Your task to perform on an android device: Open wifi settings Image 0: 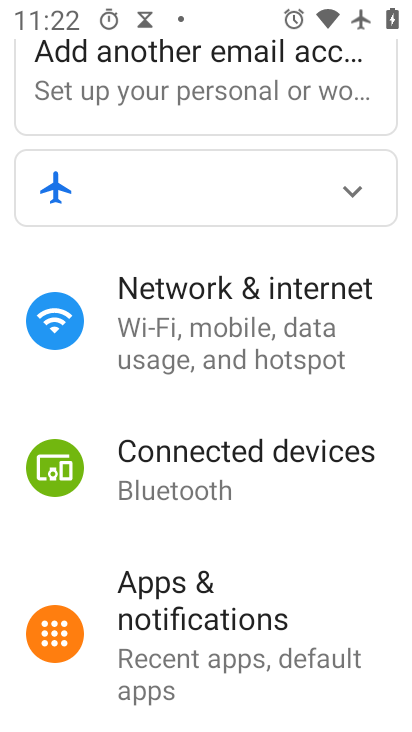
Step 0: press home button
Your task to perform on an android device: Open wifi settings Image 1: 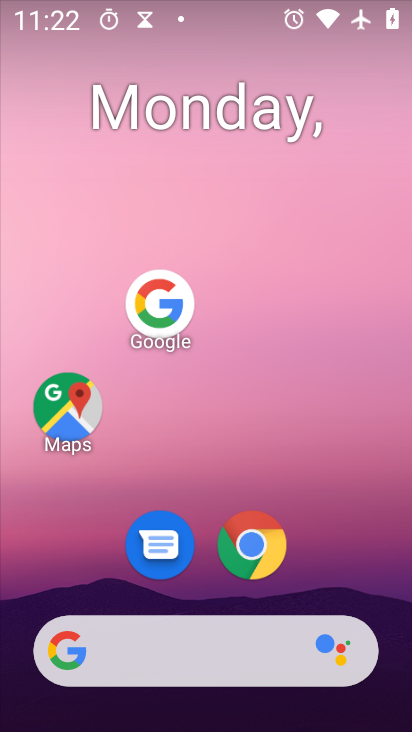
Step 1: drag from (182, 667) to (276, 196)
Your task to perform on an android device: Open wifi settings Image 2: 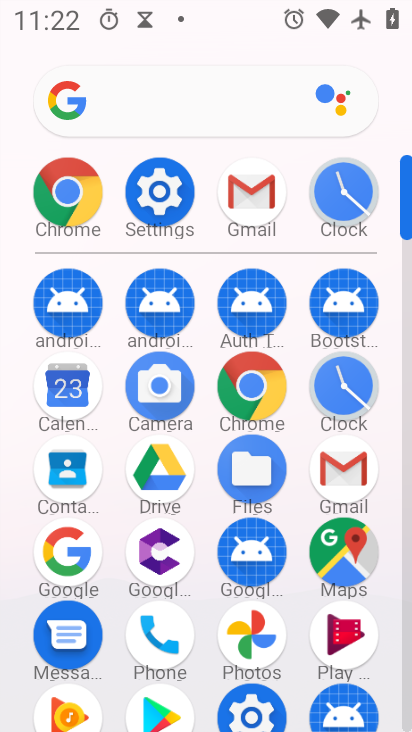
Step 2: click (164, 184)
Your task to perform on an android device: Open wifi settings Image 3: 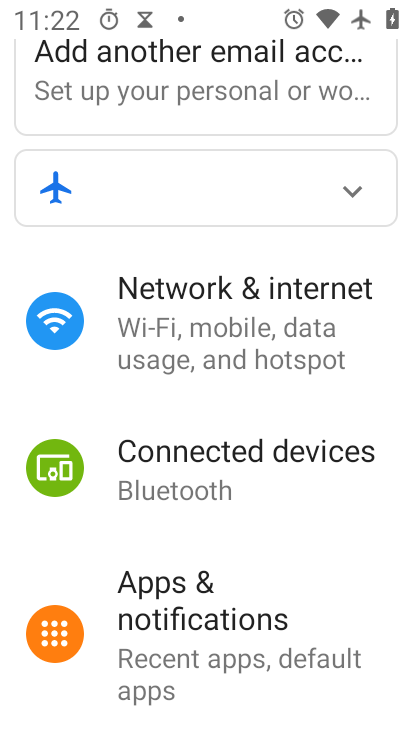
Step 3: click (217, 313)
Your task to perform on an android device: Open wifi settings Image 4: 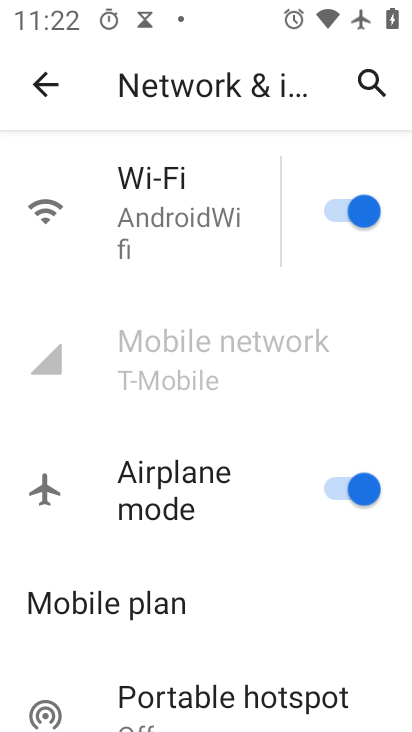
Step 4: click (162, 208)
Your task to perform on an android device: Open wifi settings Image 5: 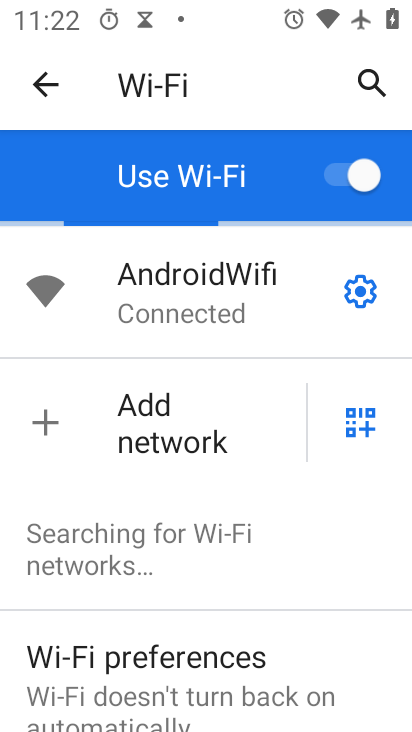
Step 5: task complete